Your task to perform on an android device: Go to privacy settings Image 0: 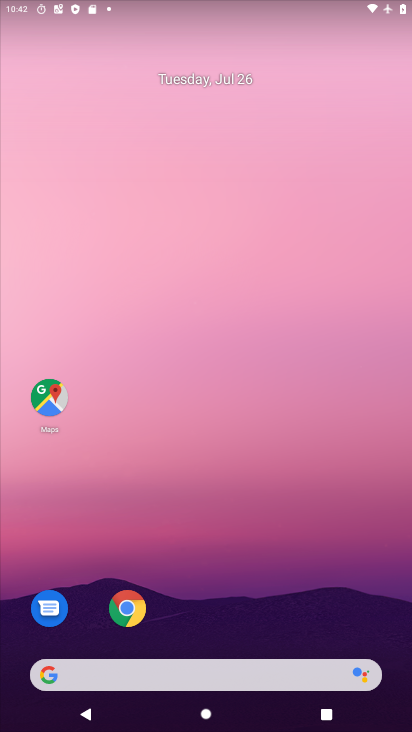
Step 0: drag from (279, 608) to (240, 128)
Your task to perform on an android device: Go to privacy settings Image 1: 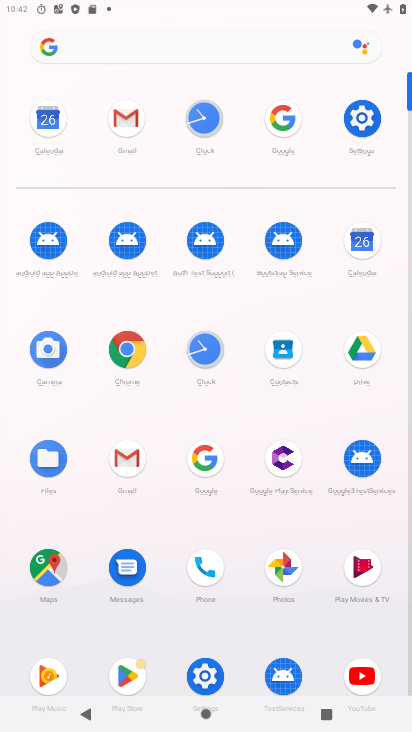
Step 1: click (336, 111)
Your task to perform on an android device: Go to privacy settings Image 2: 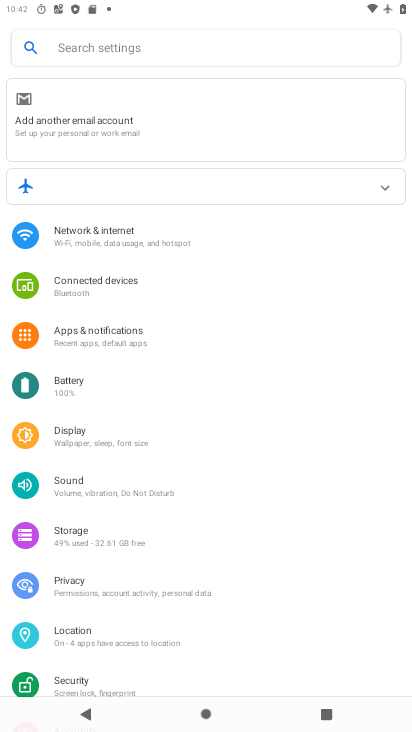
Step 2: click (99, 588)
Your task to perform on an android device: Go to privacy settings Image 3: 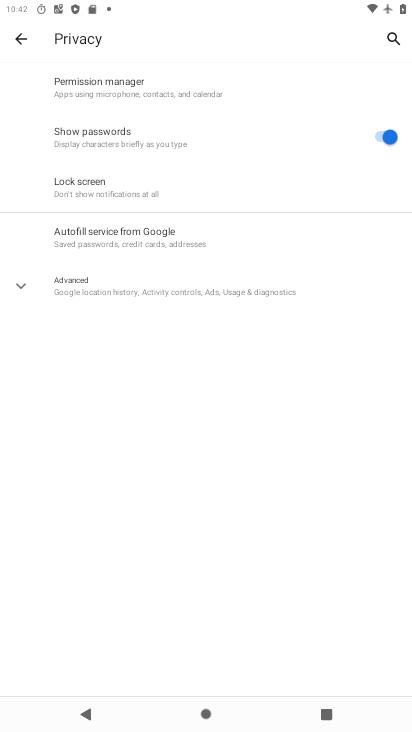
Step 3: task complete